Your task to perform on an android device: open a bookmark in the chrome app Image 0: 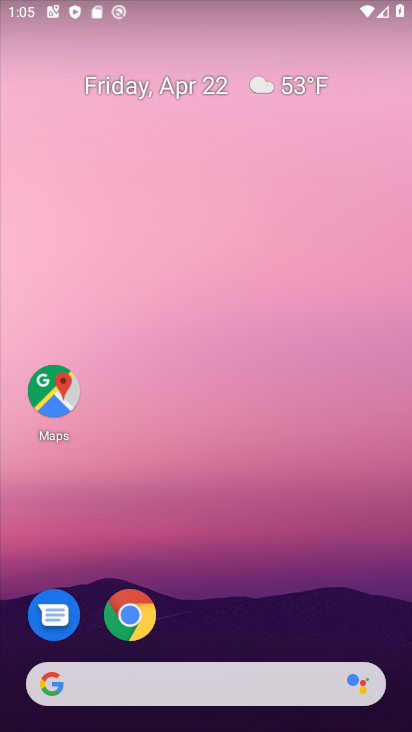
Step 0: click (128, 619)
Your task to perform on an android device: open a bookmark in the chrome app Image 1: 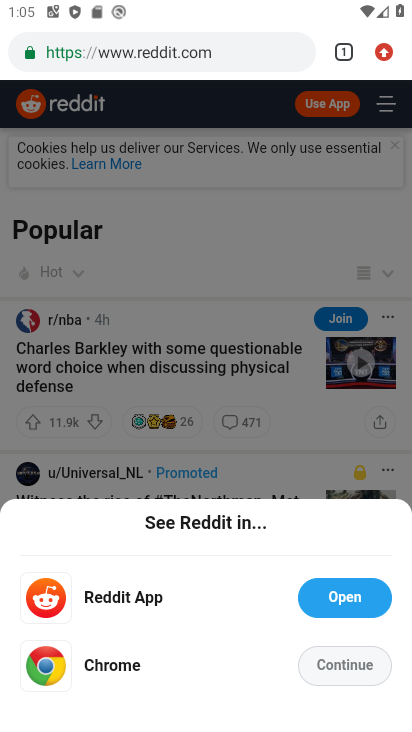
Step 1: click (381, 49)
Your task to perform on an android device: open a bookmark in the chrome app Image 2: 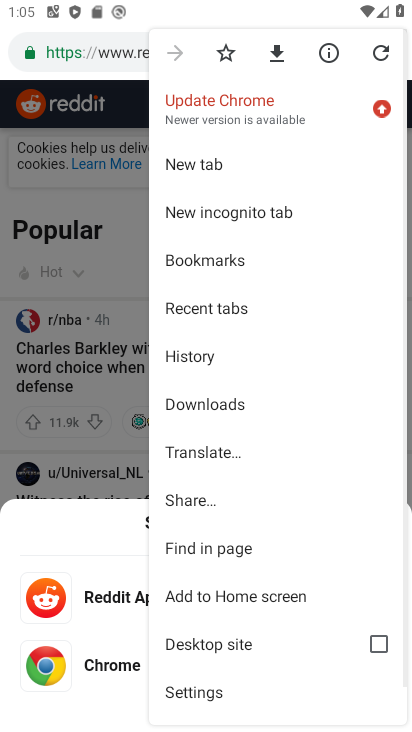
Step 2: click (236, 265)
Your task to perform on an android device: open a bookmark in the chrome app Image 3: 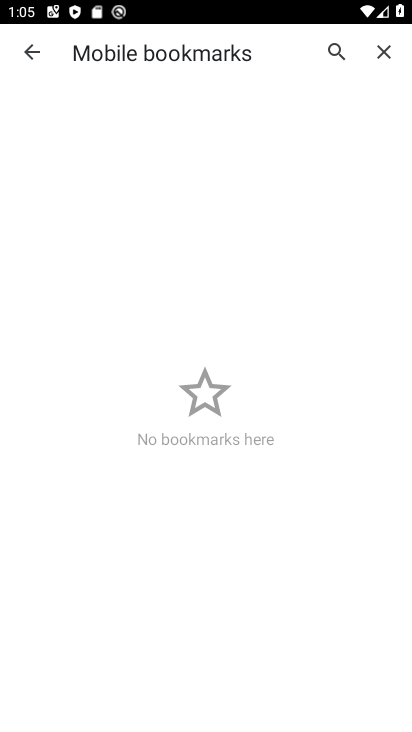
Step 3: task complete